Your task to perform on an android device: Go to Google maps Image 0: 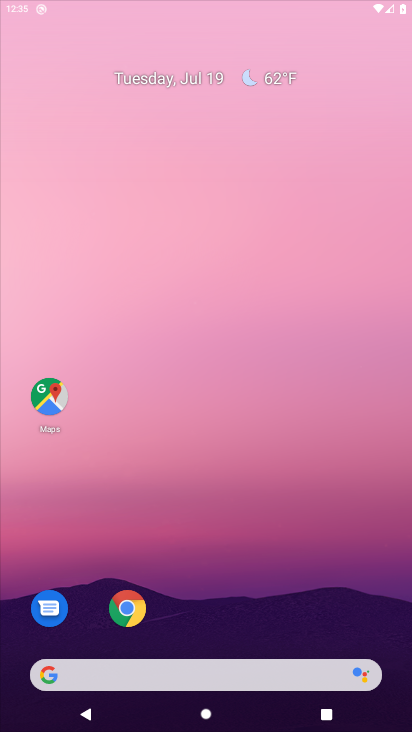
Step 0: press home button
Your task to perform on an android device: Go to Google maps Image 1: 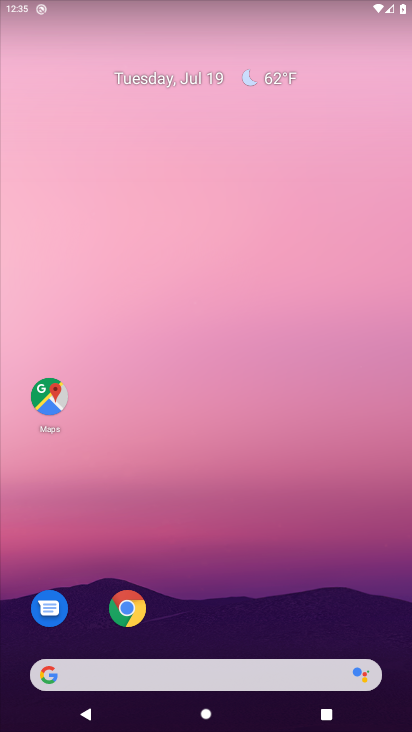
Step 1: click (48, 389)
Your task to perform on an android device: Go to Google maps Image 2: 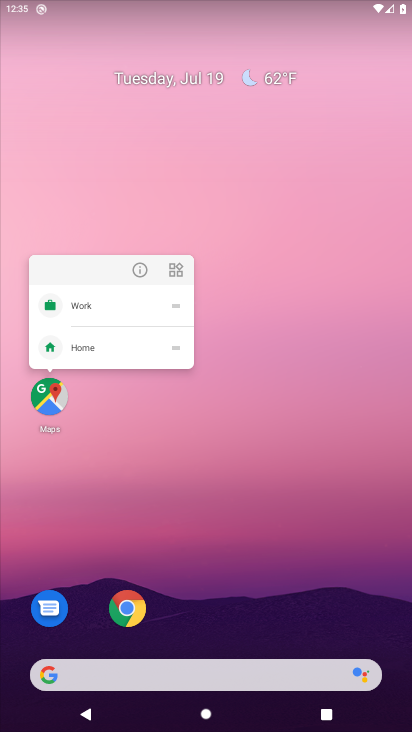
Step 2: click (47, 394)
Your task to perform on an android device: Go to Google maps Image 3: 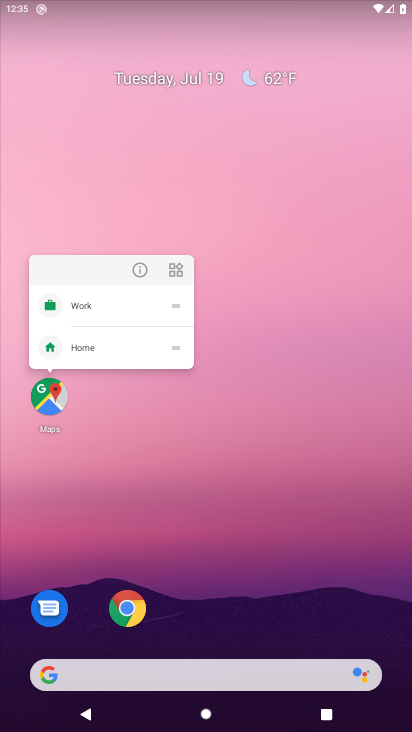
Step 3: click (47, 391)
Your task to perform on an android device: Go to Google maps Image 4: 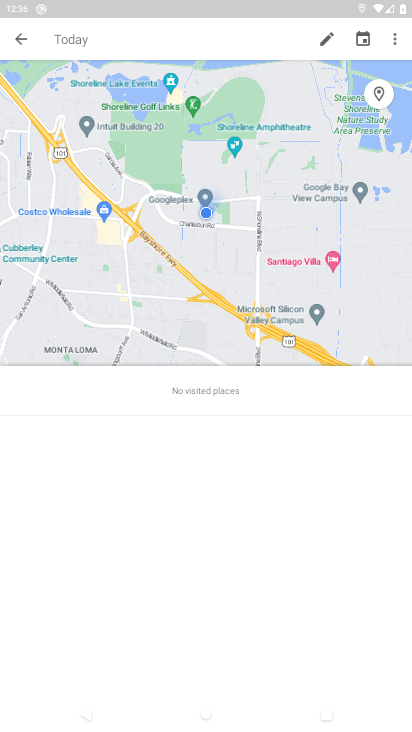
Step 4: click (17, 39)
Your task to perform on an android device: Go to Google maps Image 5: 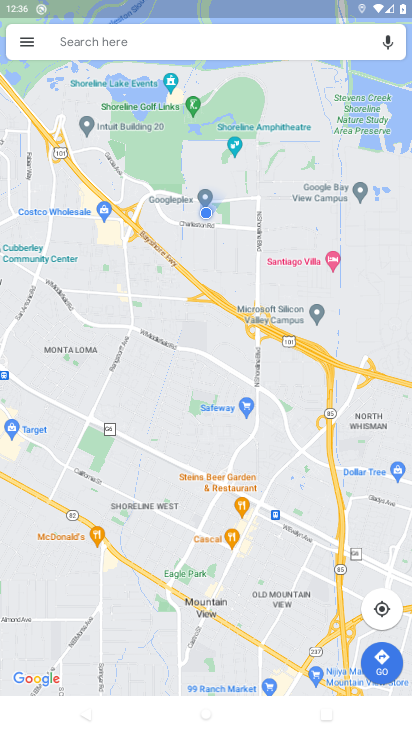
Step 5: task complete